Your task to perform on an android device: Open sound settings Image 0: 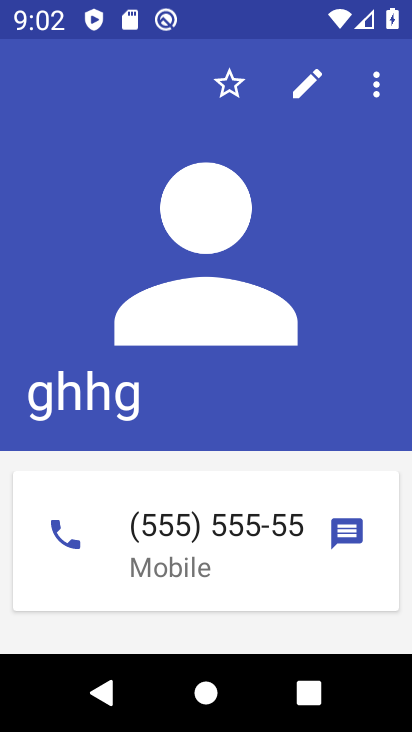
Step 0: press home button
Your task to perform on an android device: Open sound settings Image 1: 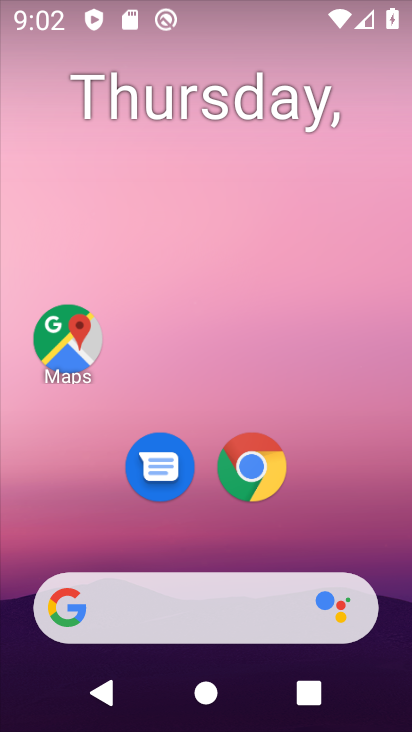
Step 1: drag from (366, 467) to (279, 37)
Your task to perform on an android device: Open sound settings Image 2: 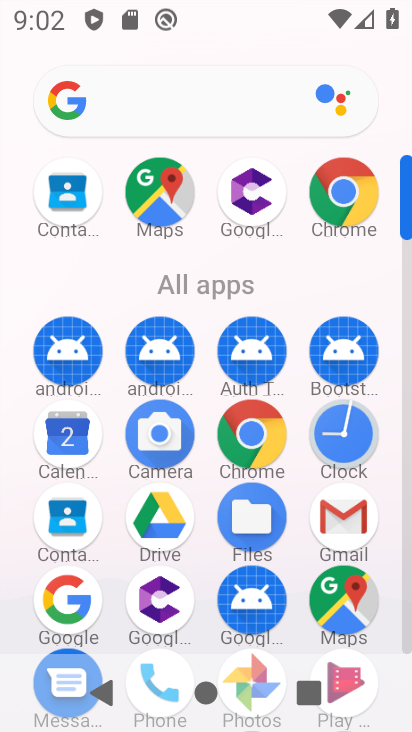
Step 2: drag from (399, 595) to (411, 102)
Your task to perform on an android device: Open sound settings Image 3: 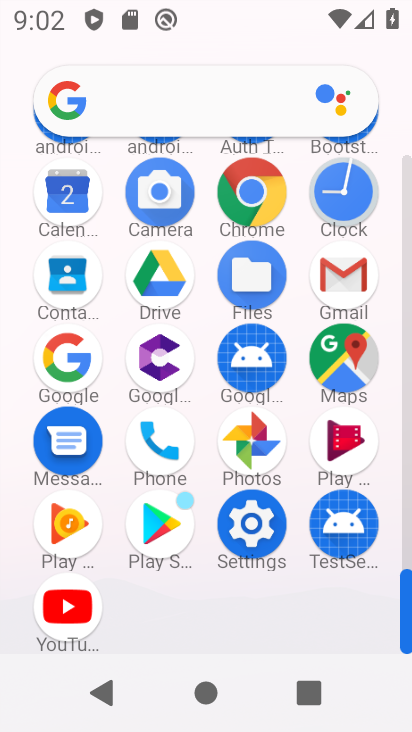
Step 3: click (268, 524)
Your task to perform on an android device: Open sound settings Image 4: 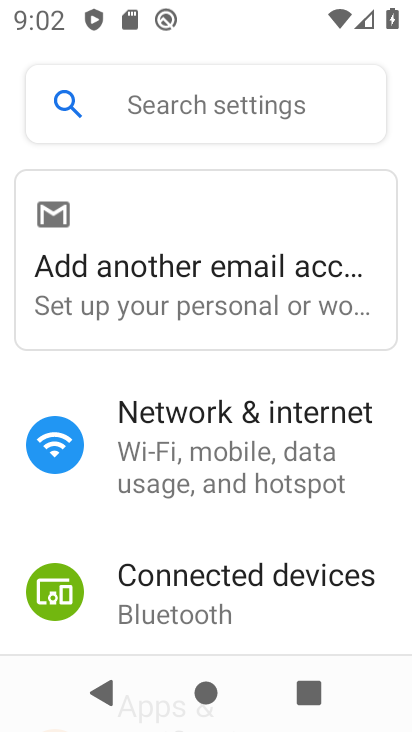
Step 4: drag from (260, 598) to (197, 153)
Your task to perform on an android device: Open sound settings Image 5: 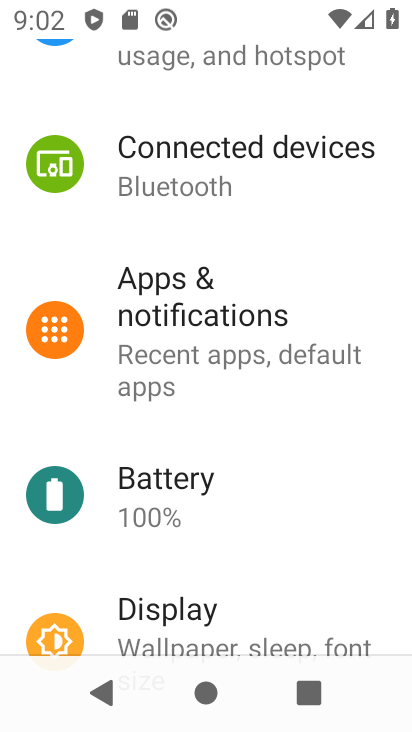
Step 5: drag from (171, 565) to (93, 156)
Your task to perform on an android device: Open sound settings Image 6: 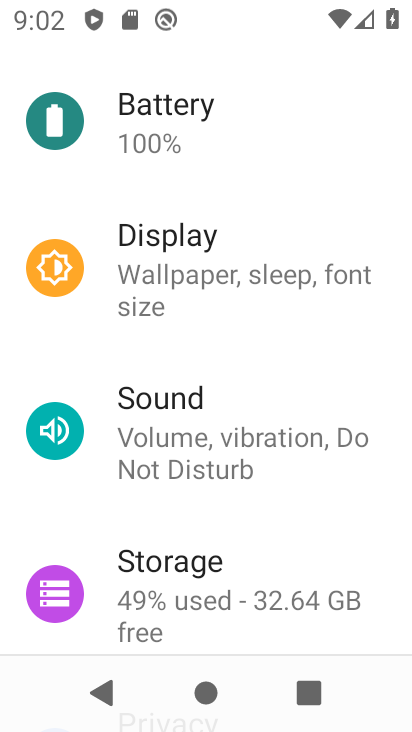
Step 6: click (174, 433)
Your task to perform on an android device: Open sound settings Image 7: 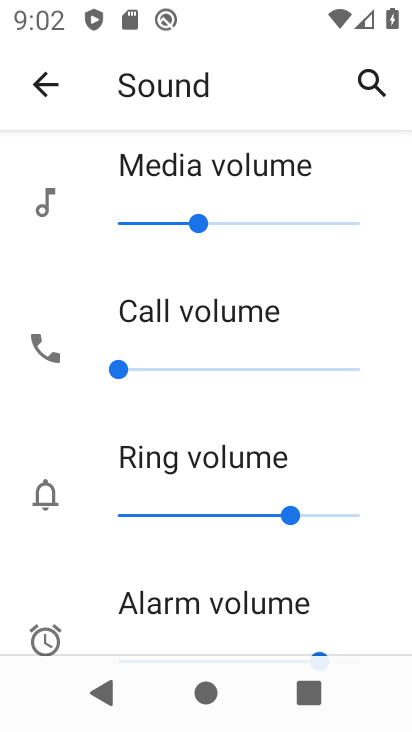
Step 7: task complete